Your task to perform on an android device: Clear all items from cart on amazon. Search for "lg ultragear" on amazon, select the first entry, and add it to the cart. Image 0: 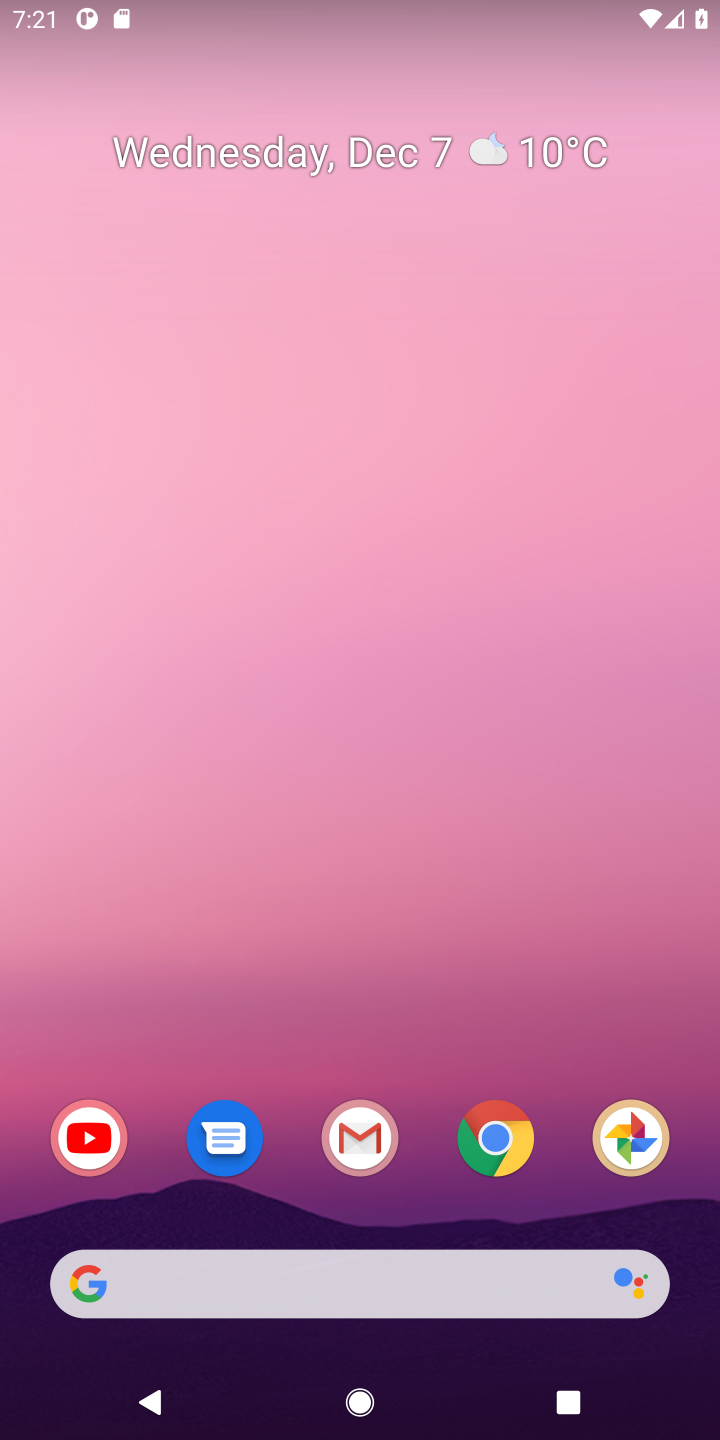
Step 0: press home button
Your task to perform on an android device: Clear all items from cart on amazon. Search for "lg ultragear" on amazon, select the first entry, and add it to the cart. Image 1: 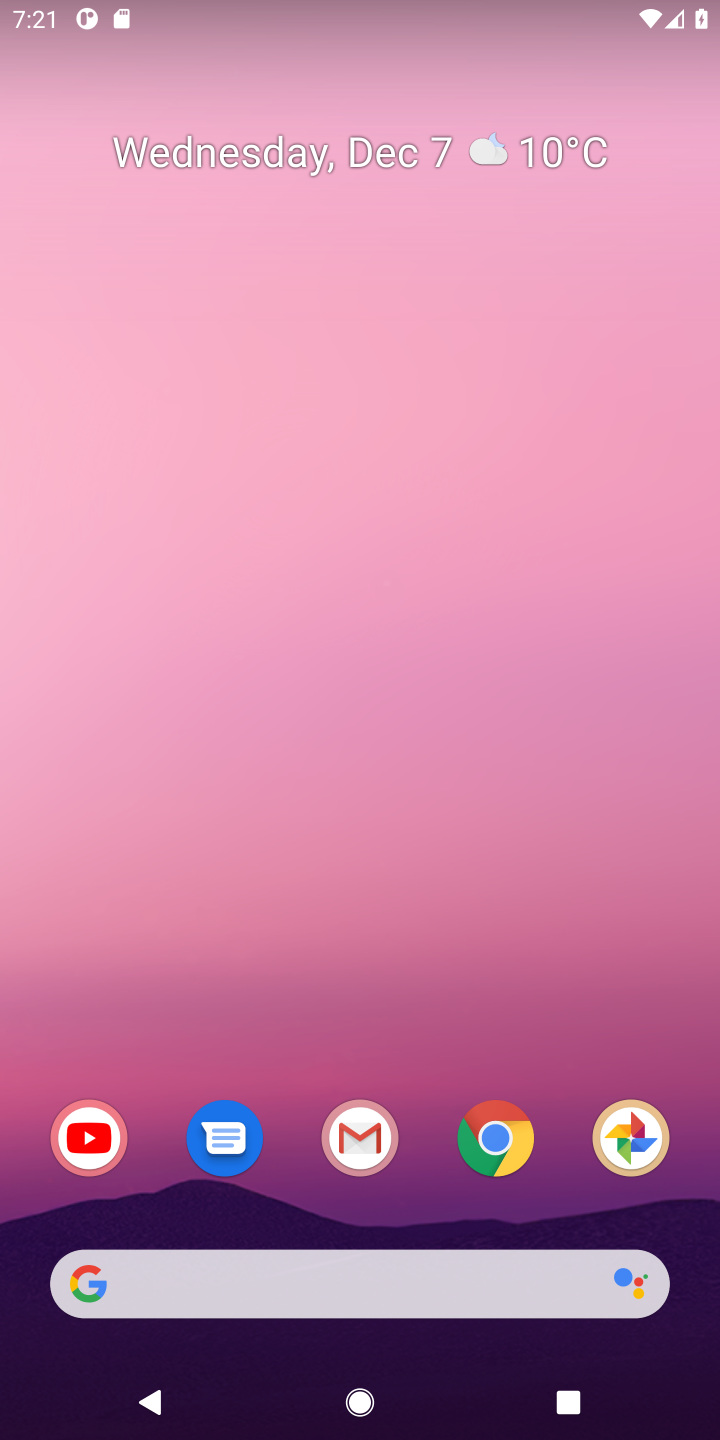
Step 1: click (148, 1285)
Your task to perform on an android device: Clear all items from cart on amazon. Search for "lg ultragear" on amazon, select the first entry, and add it to the cart. Image 2: 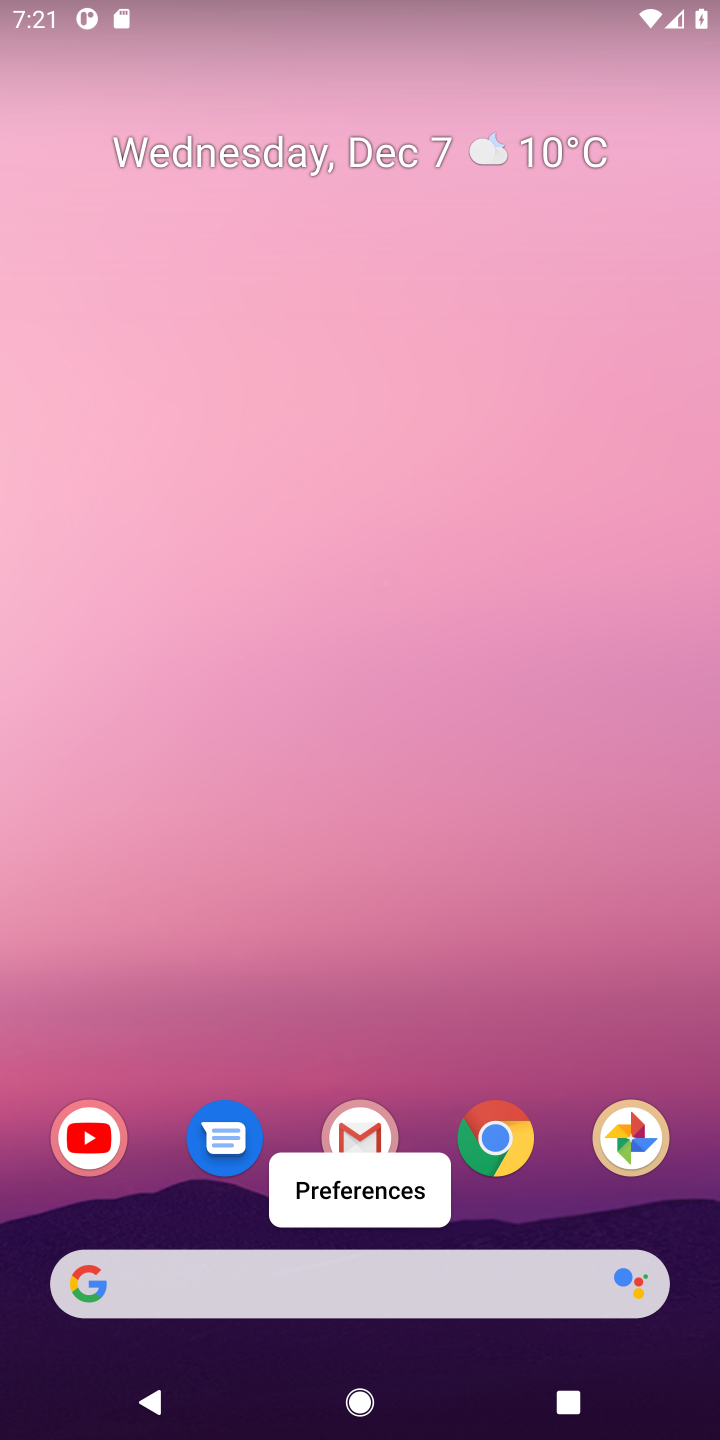
Step 2: click (146, 1285)
Your task to perform on an android device: Clear all items from cart on amazon. Search for "lg ultragear" on amazon, select the first entry, and add it to the cart. Image 3: 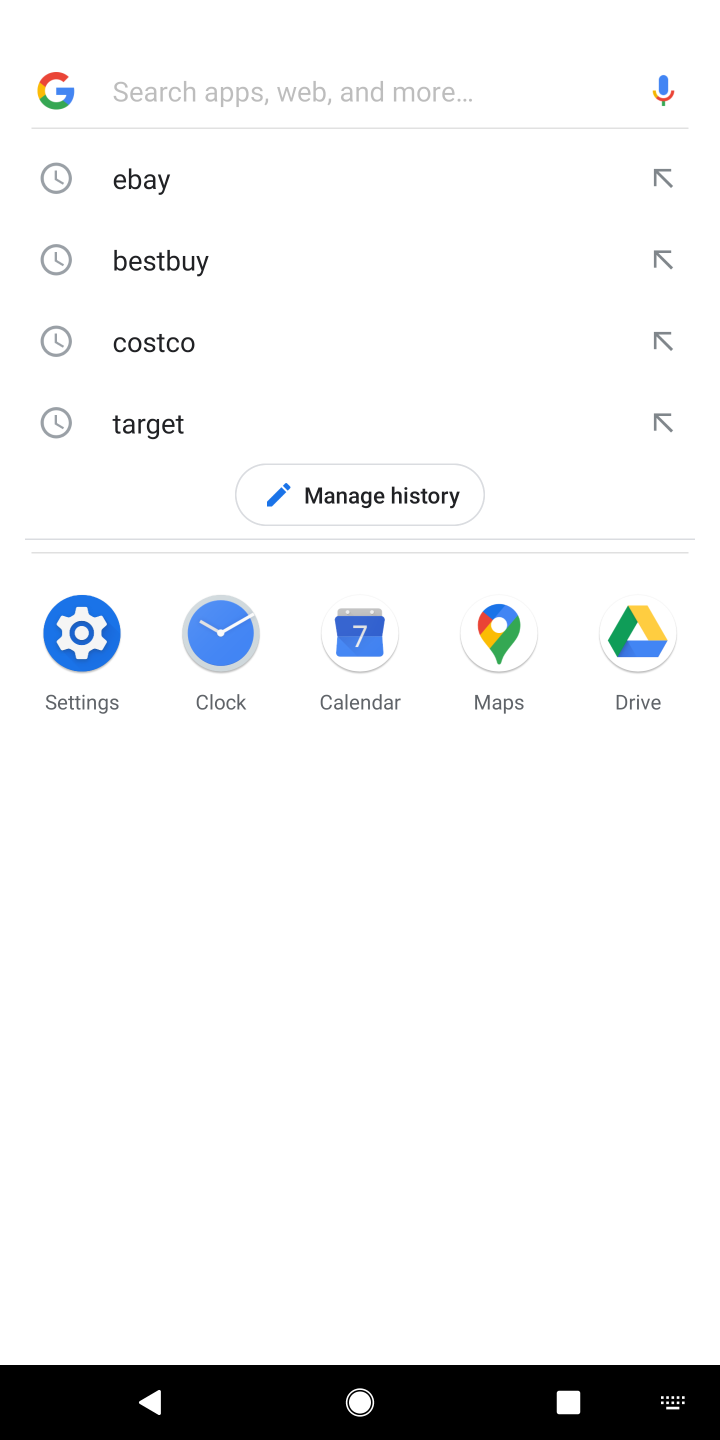
Step 3: press enter
Your task to perform on an android device: Clear all items from cart on amazon. Search for "lg ultragear" on amazon, select the first entry, and add it to the cart. Image 4: 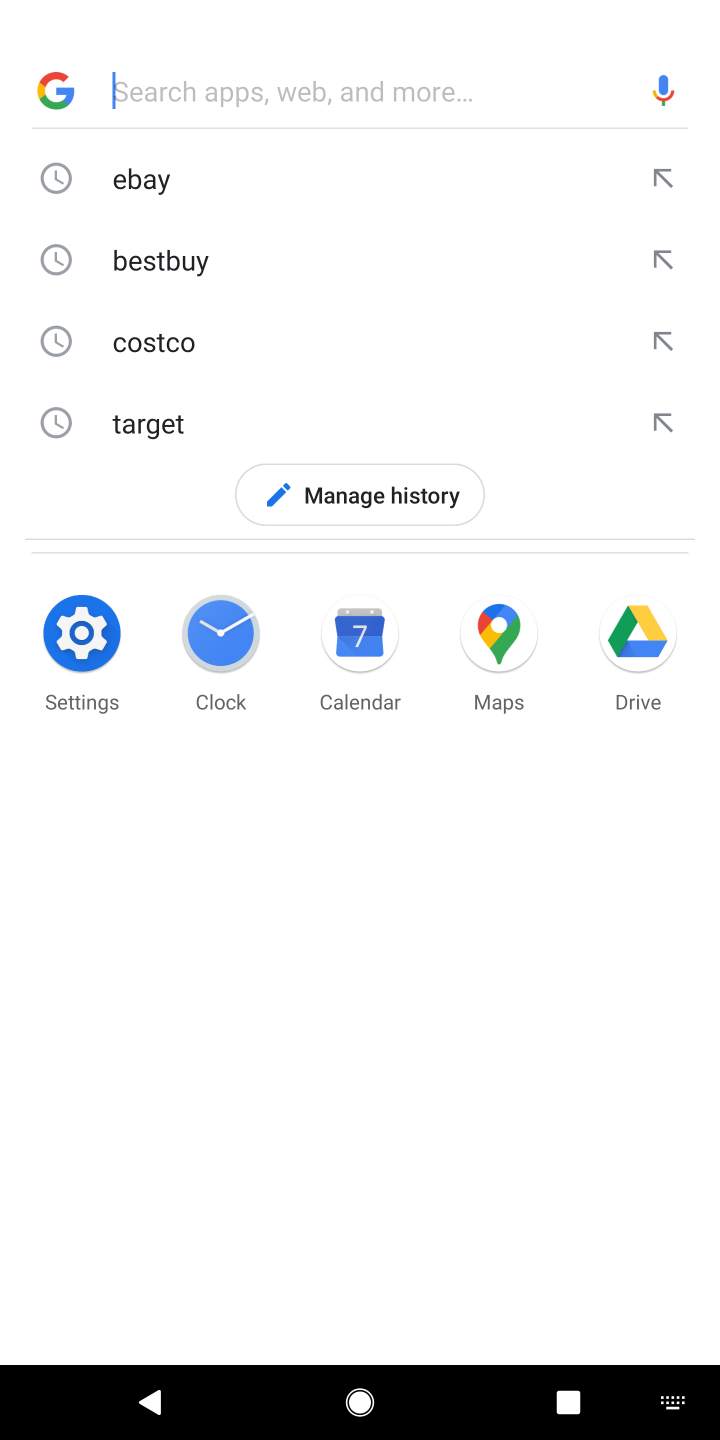
Step 4: type "amazon"
Your task to perform on an android device: Clear all items from cart on amazon. Search for "lg ultragear" on amazon, select the first entry, and add it to the cart. Image 5: 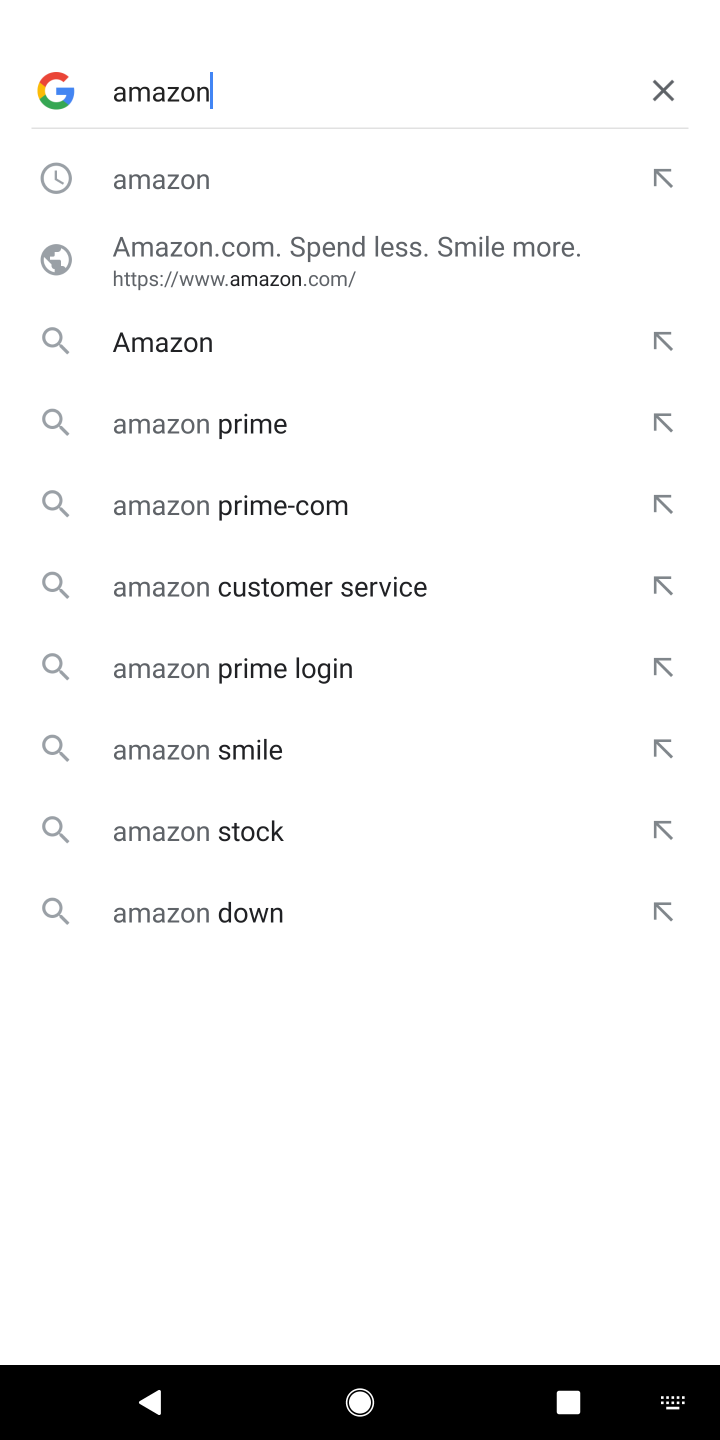
Step 5: press enter
Your task to perform on an android device: Clear all items from cart on amazon. Search for "lg ultragear" on amazon, select the first entry, and add it to the cart. Image 6: 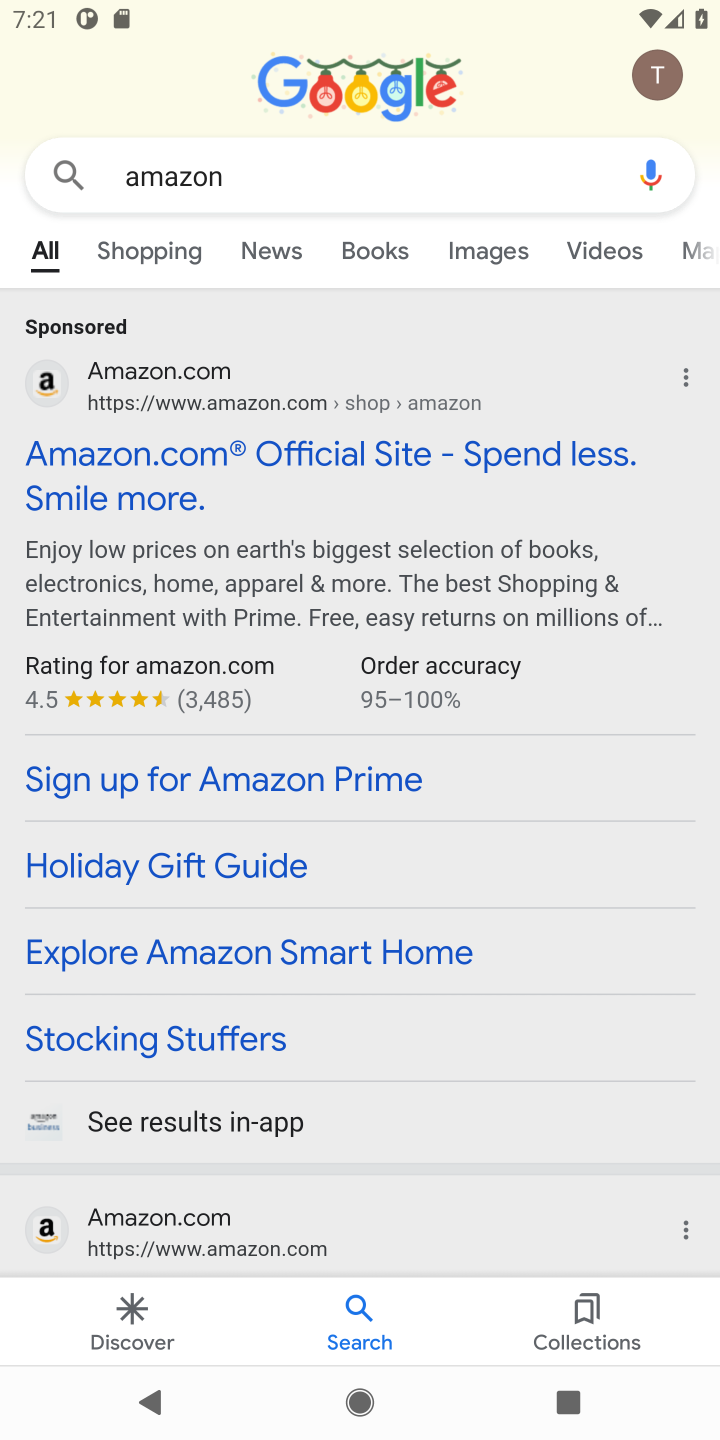
Step 6: click (310, 445)
Your task to perform on an android device: Clear all items from cart on amazon. Search for "lg ultragear" on amazon, select the first entry, and add it to the cart. Image 7: 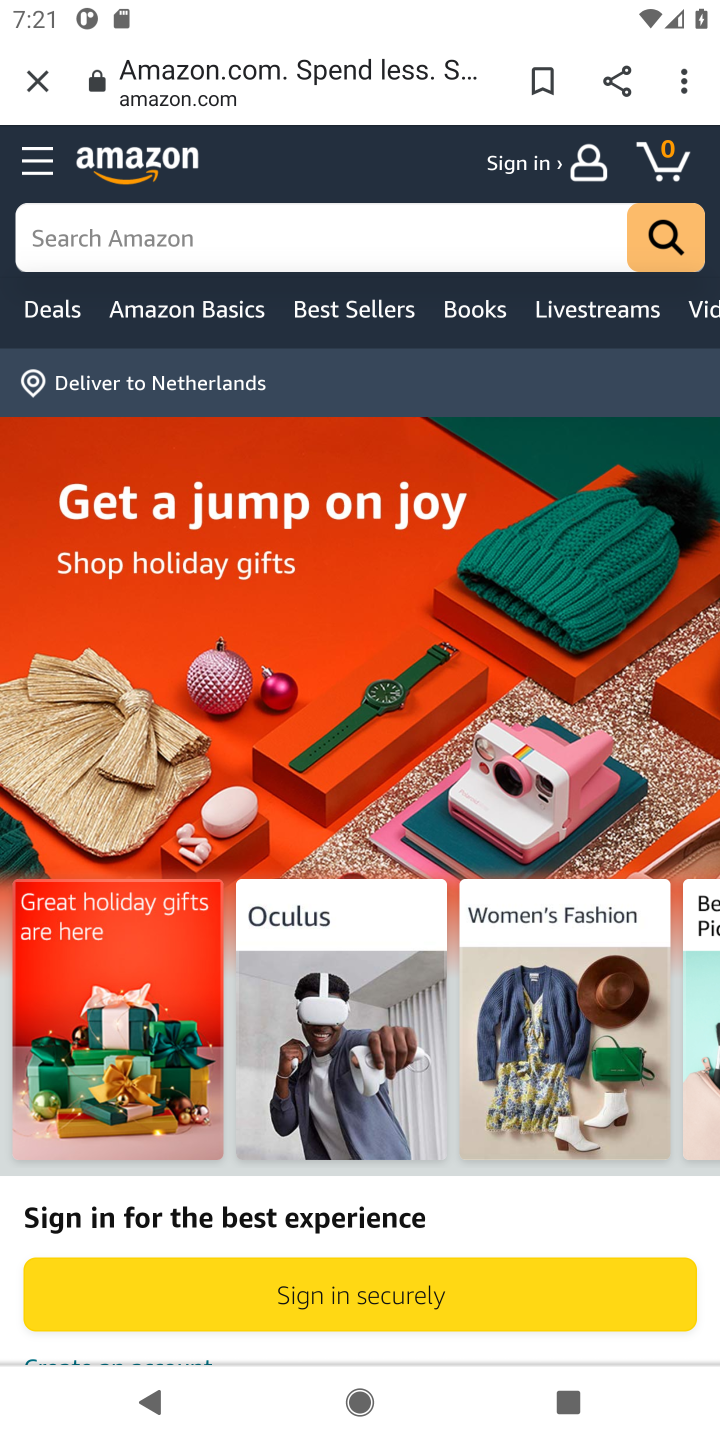
Step 7: click (658, 148)
Your task to perform on an android device: Clear all items from cart on amazon. Search for "lg ultragear" on amazon, select the first entry, and add it to the cart. Image 8: 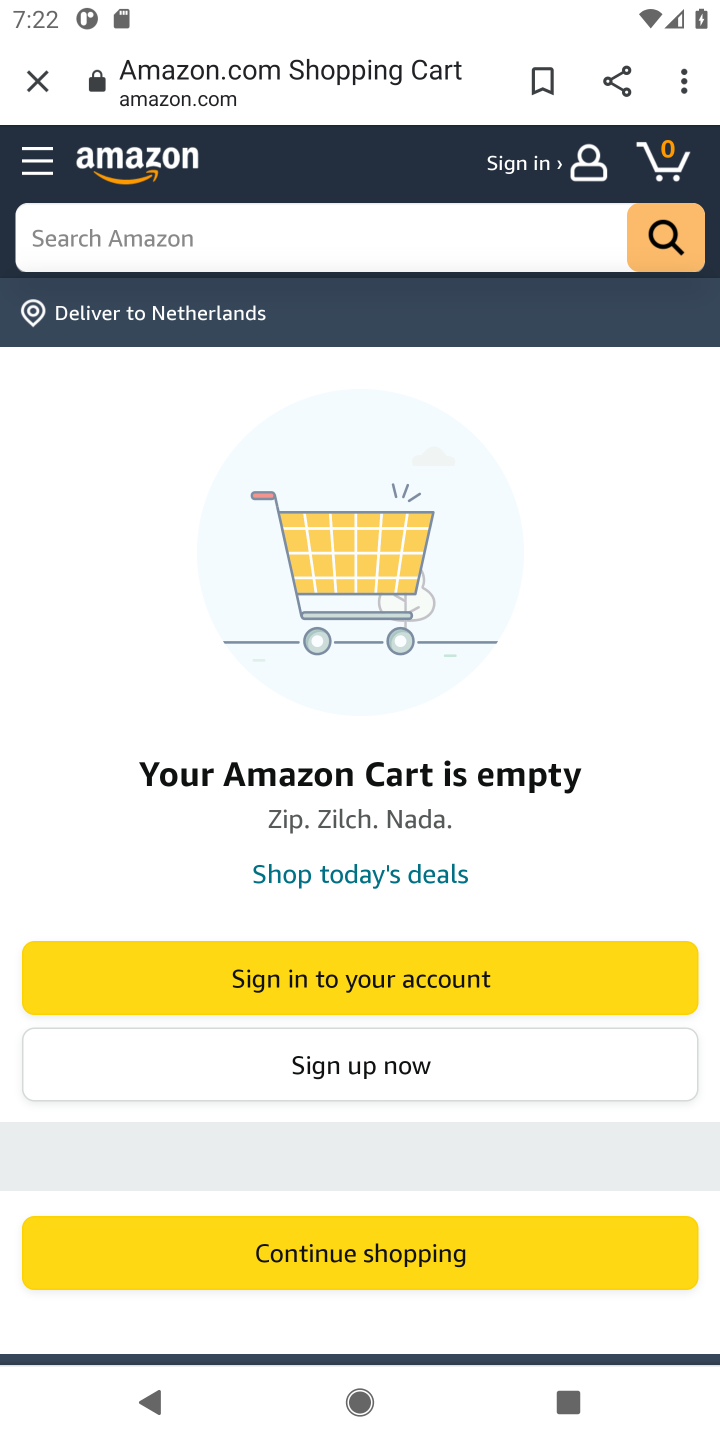
Step 8: click (176, 234)
Your task to perform on an android device: Clear all items from cart on amazon. Search for "lg ultragear" on amazon, select the first entry, and add it to the cart. Image 9: 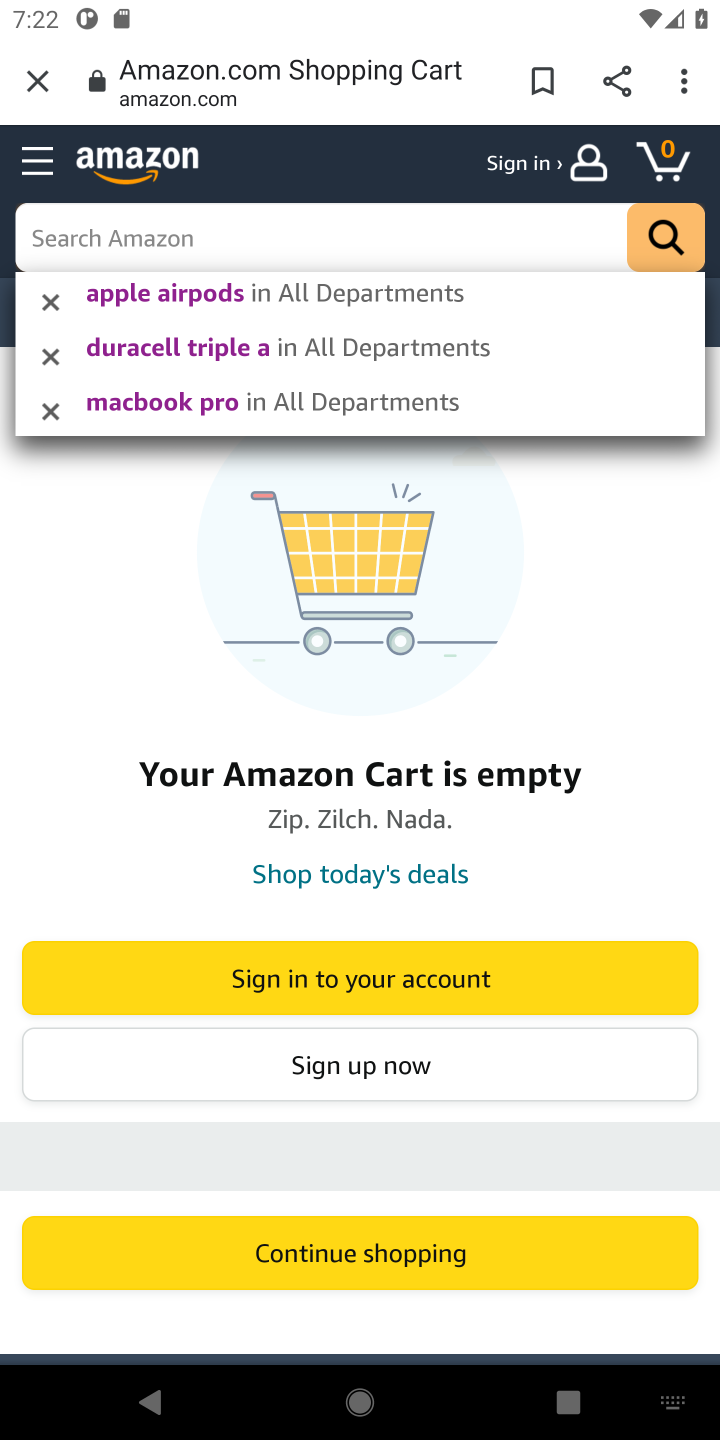
Step 9: type "lg ultragear"
Your task to perform on an android device: Clear all items from cart on amazon. Search for "lg ultragear" on amazon, select the first entry, and add it to the cart. Image 10: 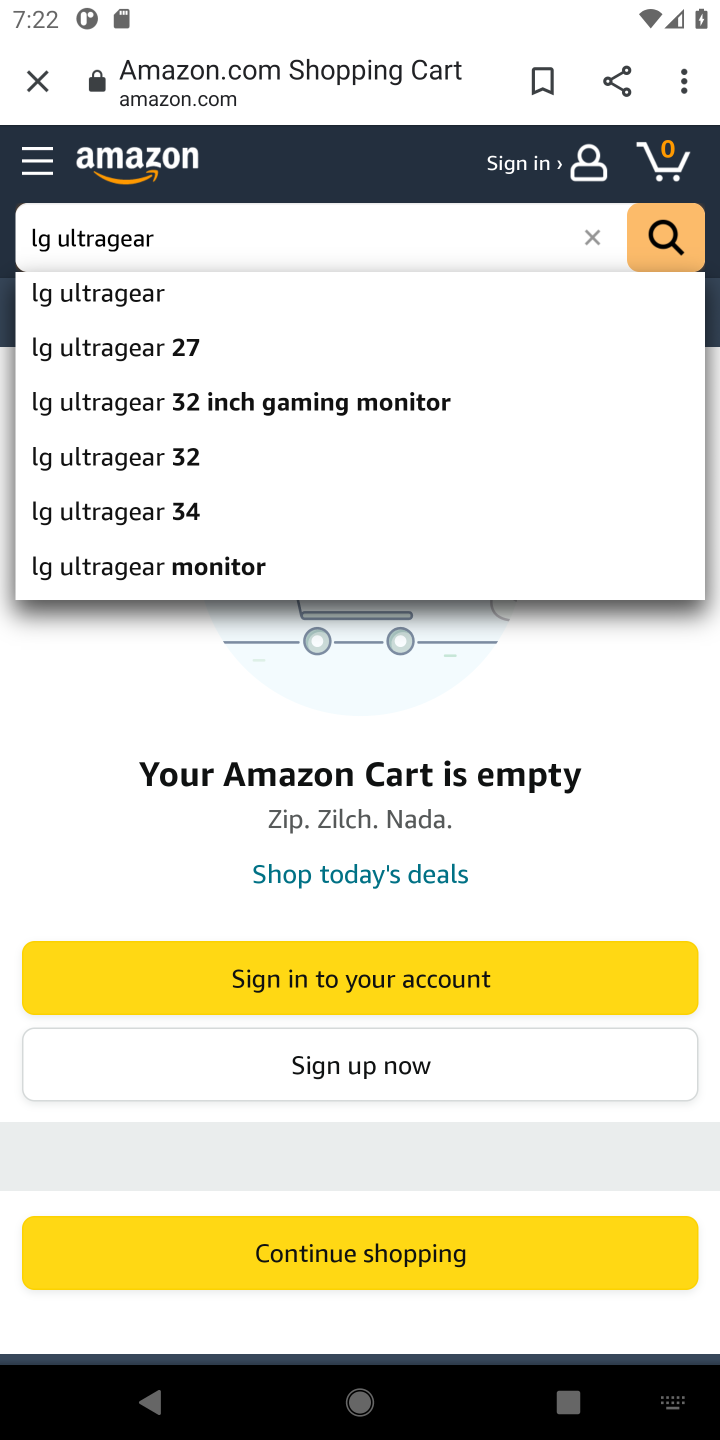
Step 10: click (656, 226)
Your task to perform on an android device: Clear all items from cart on amazon. Search for "lg ultragear" on amazon, select the first entry, and add it to the cart. Image 11: 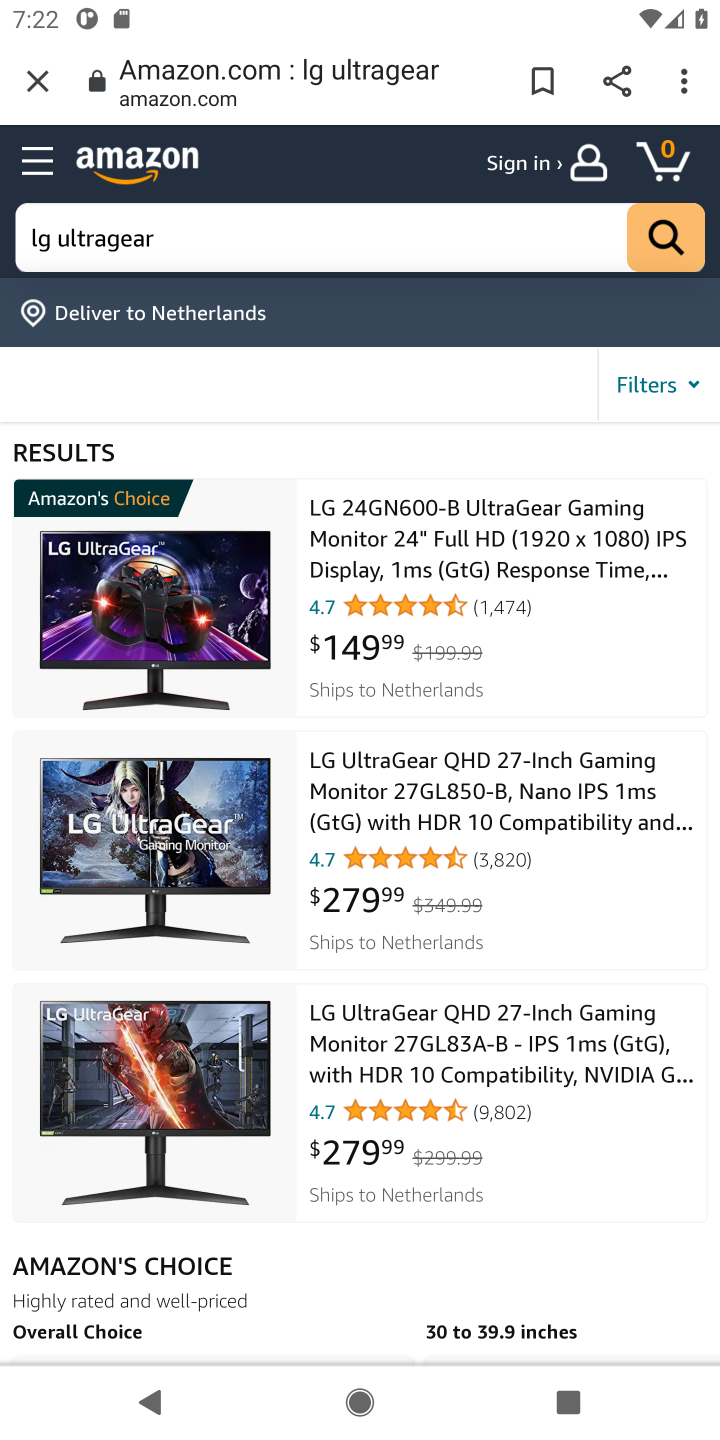
Step 11: click (525, 549)
Your task to perform on an android device: Clear all items from cart on amazon. Search for "lg ultragear" on amazon, select the first entry, and add it to the cart. Image 12: 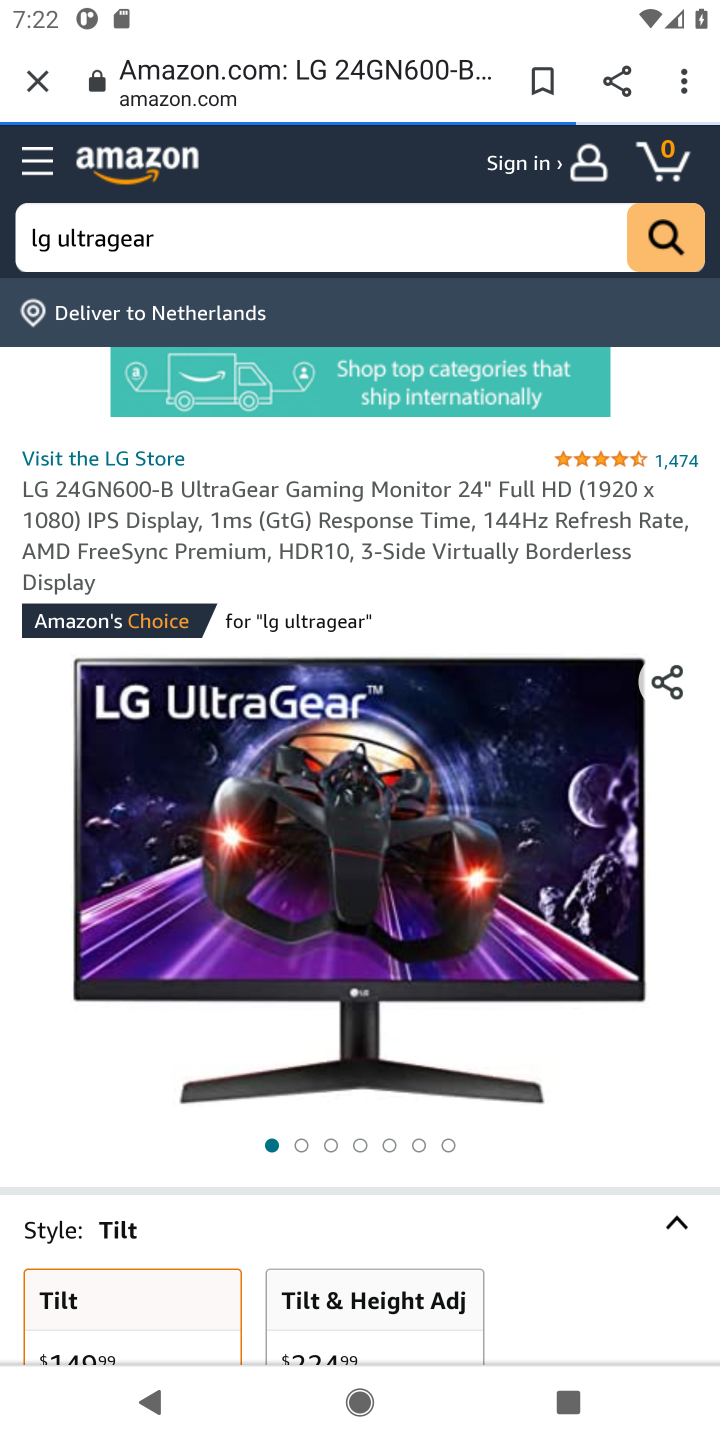
Step 12: drag from (28, 1103) to (26, 676)
Your task to perform on an android device: Clear all items from cart on amazon. Search for "lg ultragear" on amazon, select the first entry, and add it to the cart. Image 13: 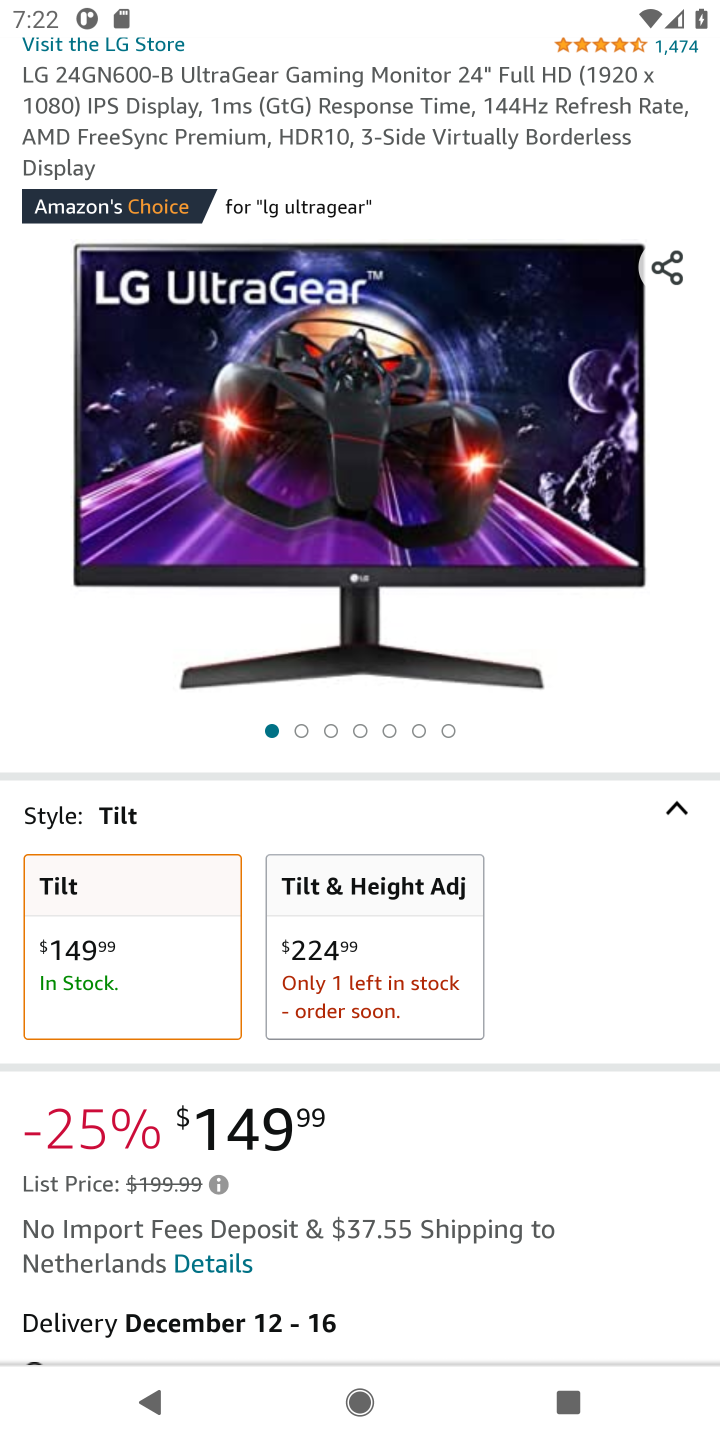
Step 13: drag from (647, 1112) to (666, 382)
Your task to perform on an android device: Clear all items from cart on amazon. Search for "lg ultragear" on amazon, select the first entry, and add it to the cart. Image 14: 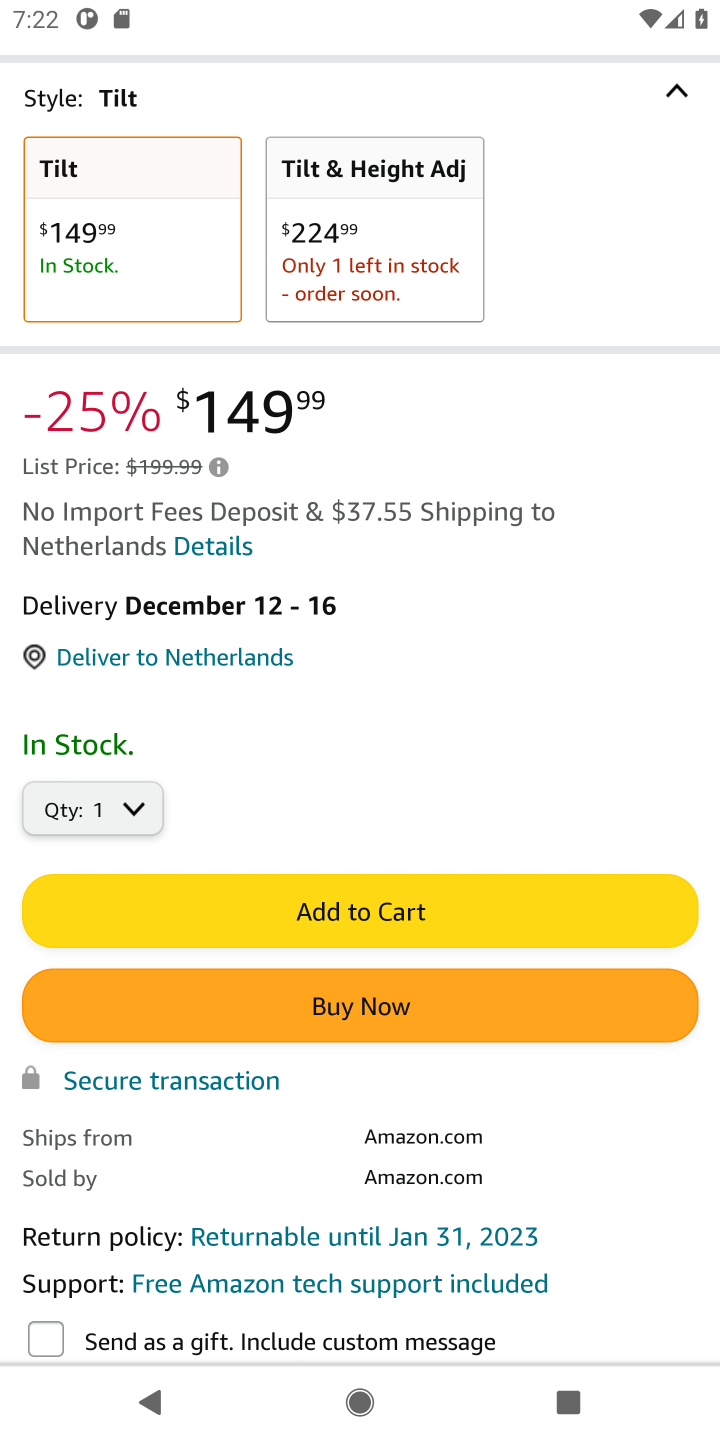
Step 14: click (371, 914)
Your task to perform on an android device: Clear all items from cart on amazon. Search for "lg ultragear" on amazon, select the first entry, and add it to the cart. Image 15: 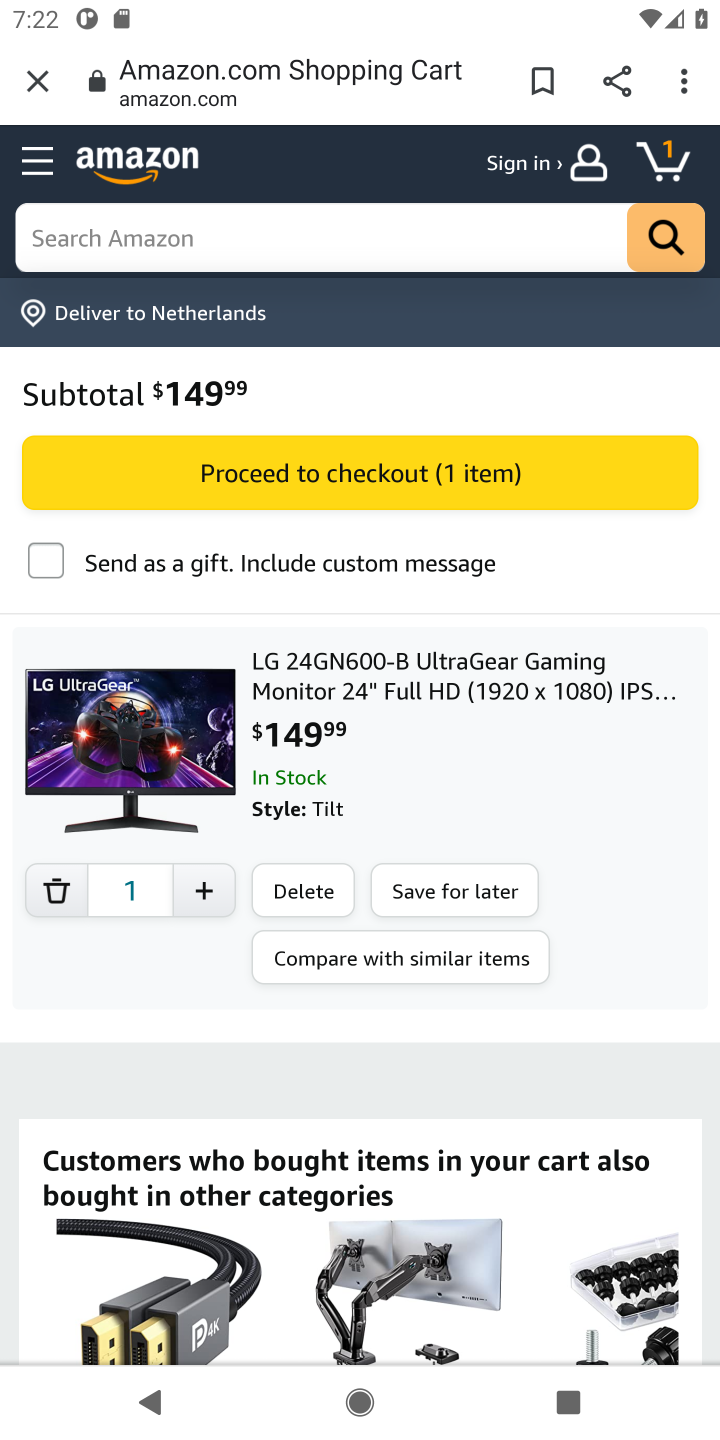
Step 15: task complete